Your task to perform on an android device: Open the calendar app, open the side menu, and click the "Day" option Image 0: 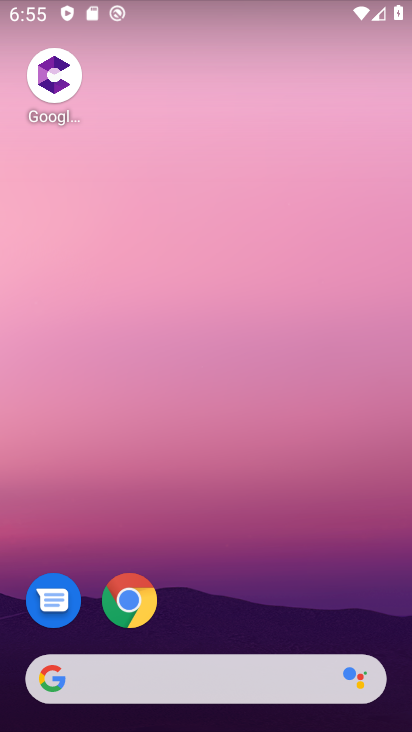
Step 0: drag from (250, 609) to (247, 1)
Your task to perform on an android device: Open the calendar app, open the side menu, and click the "Day" option Image 1: 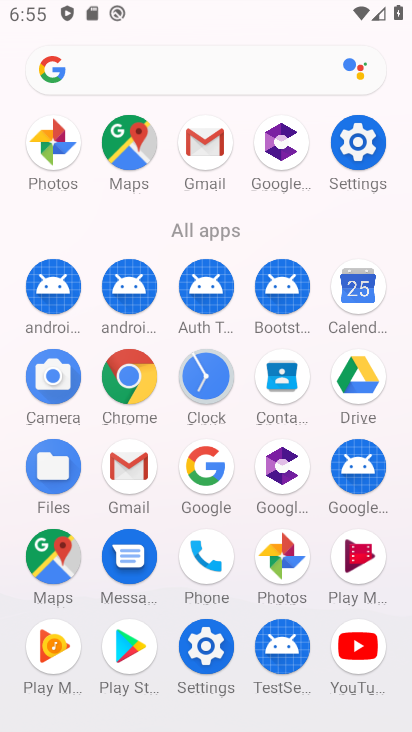
Step 1: click (358, 288)
Your task to perform on an android device: Open the calendar app, open the side menu, and click the "Day" option Image 2: 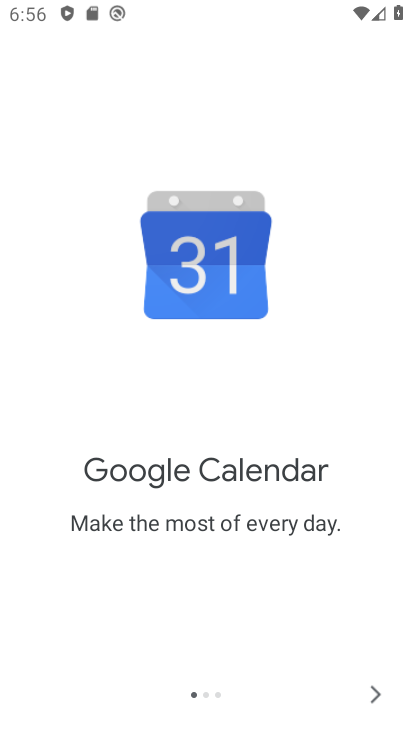
Step 2: click (379, 693)
Your task to perform on an android device: Open the calendar app, open the side menu, and click the "Day" option Image 3: 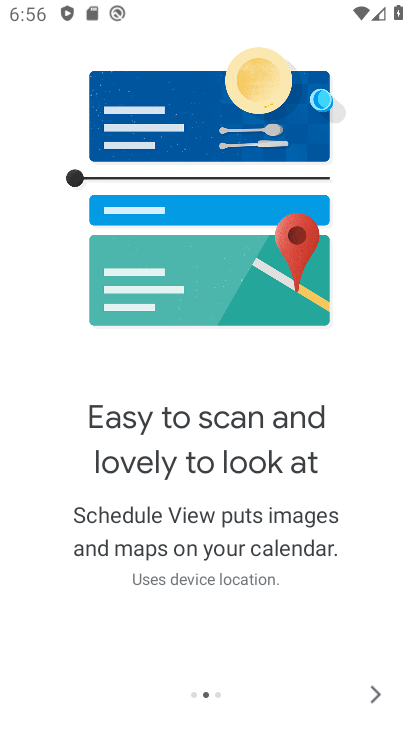
Step 3: click (379, 693)
Your task to perform on an android device: Open the calendar app, open the side menu, and click the "Day" option Image 4: 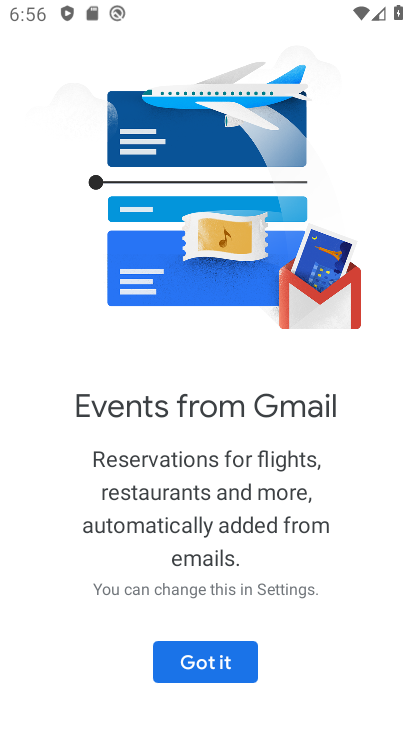
Step 4: click (203, 662)
Your task to perform on an android device: Open the calendar app, open the side menu, and click the "Day" option Image 5: 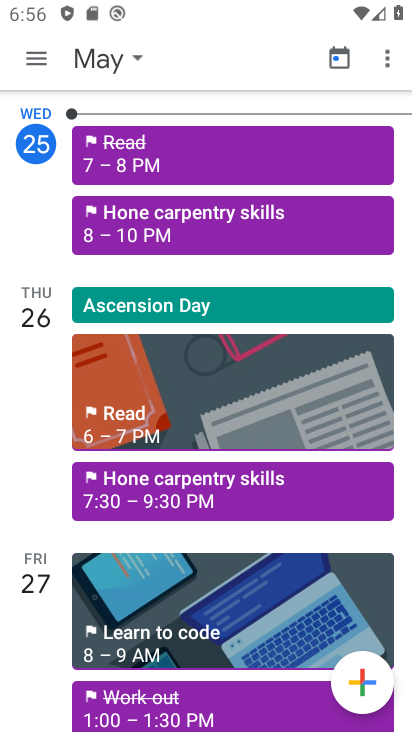
Step 5: click (37, 49)
Your task to perform on an android device: Open the calendar app, open the side menu, and click the "Day" option Image 6: 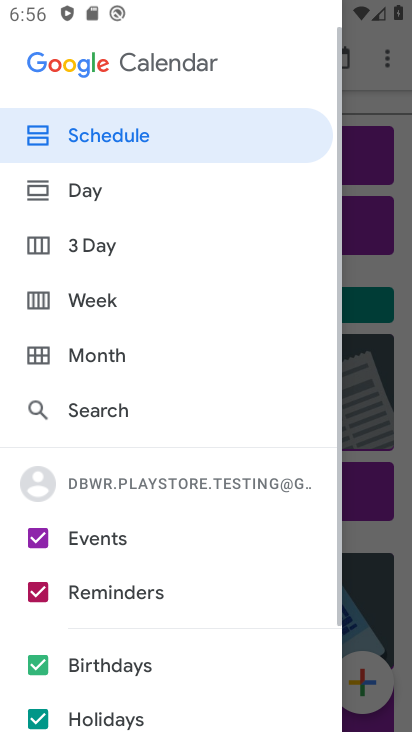
Step 6: click (83, 191)
Your task to perform on an android device: Open the calendar app, open the side menu, and click the "Day" option Image 7: 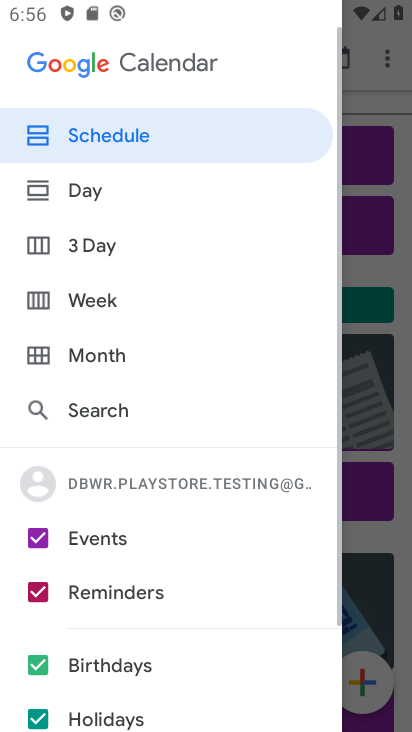
Step 7: click (84, 194)
Your task to perform on an android device: Open the calendar app, open the side menu, and click the "Day" option Image 8: 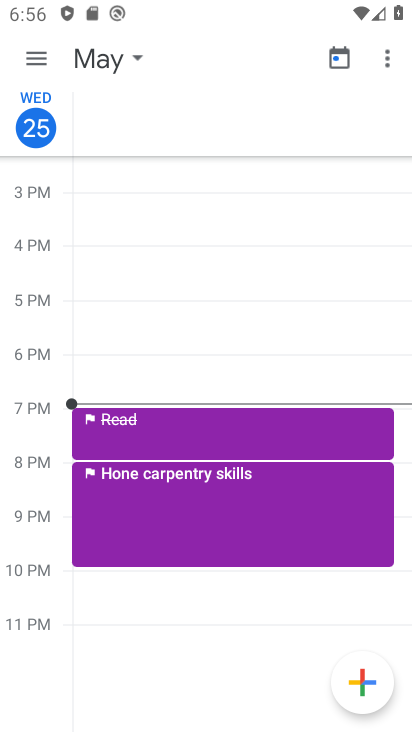
Step 8: task complete